Your task to perform on an android device: turn on airplane mode Image 0: 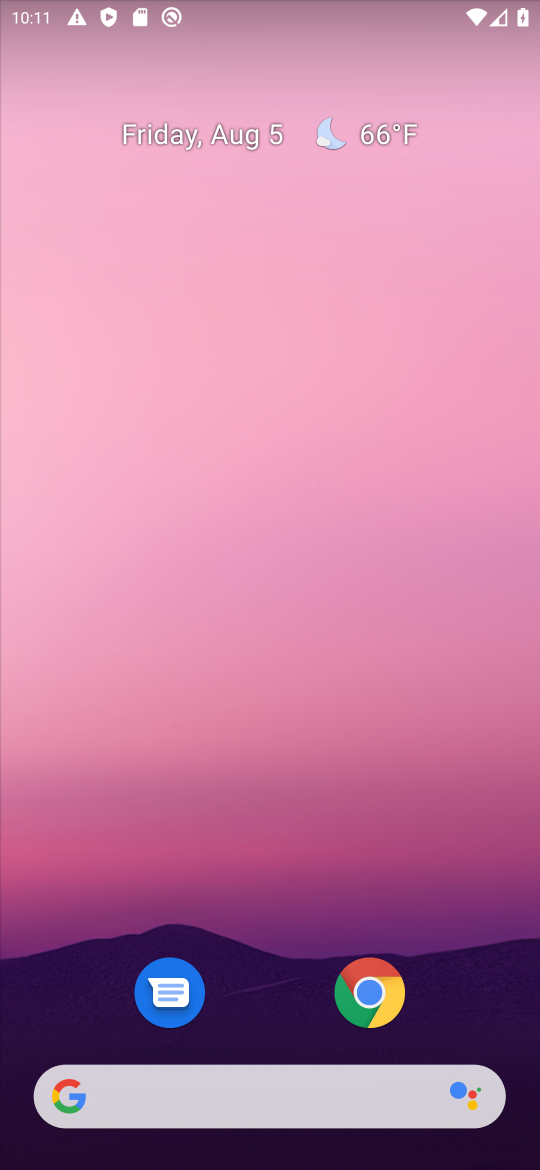
Step 0: press home button
Your task to perform on an android device: turn on airplane mode Image 1: 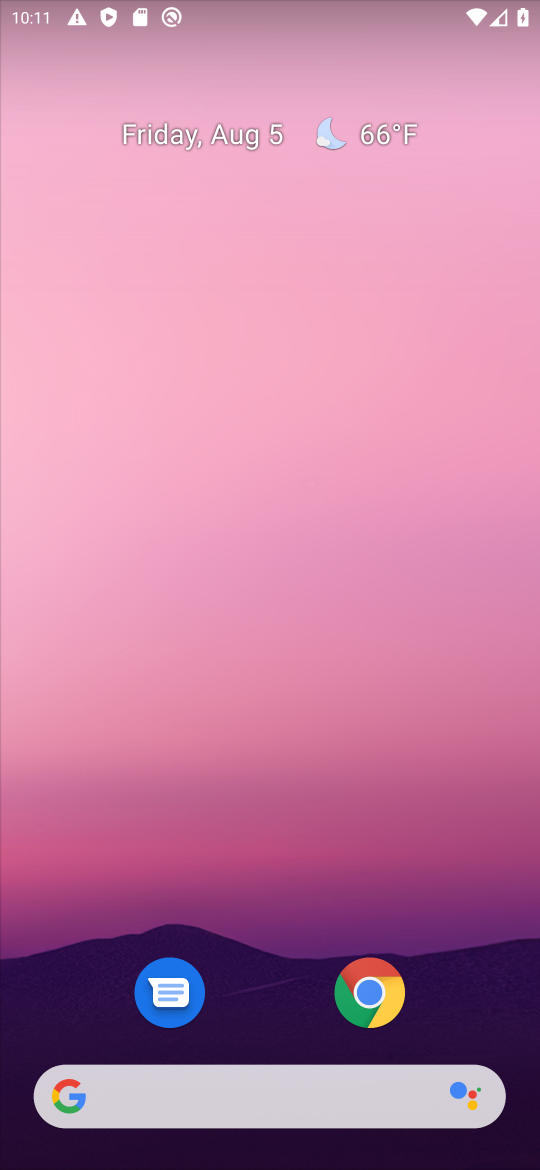
Step 1: drag from (243, 1068) to (336, 320)
Your task to perform on an android device: turn on airplane mode Image 2: 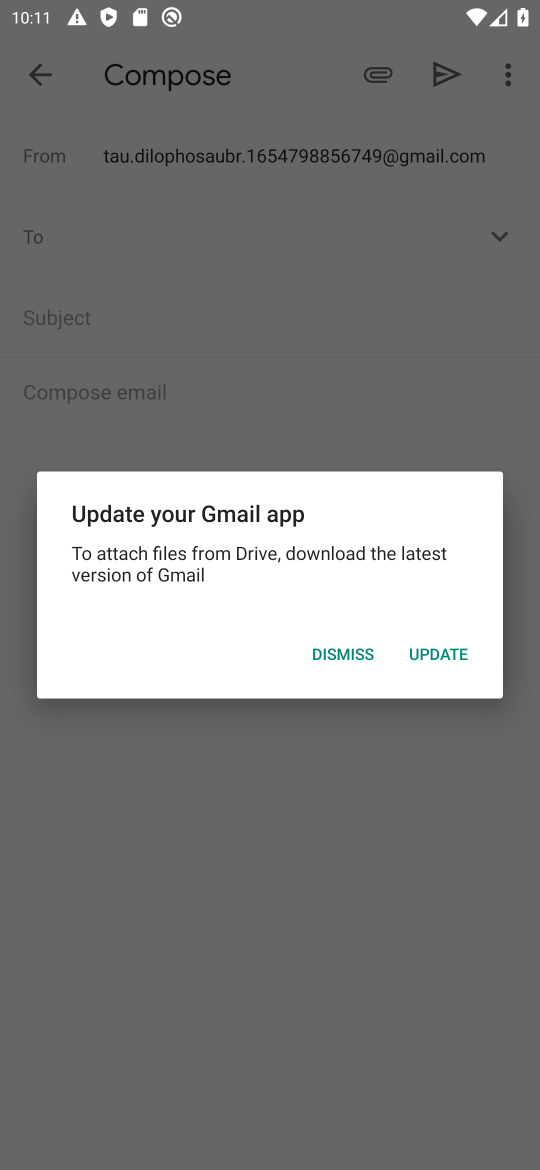
Step 2: click (462, 231)
Your task to perform on an android device: turn on airplane mode Image 3: 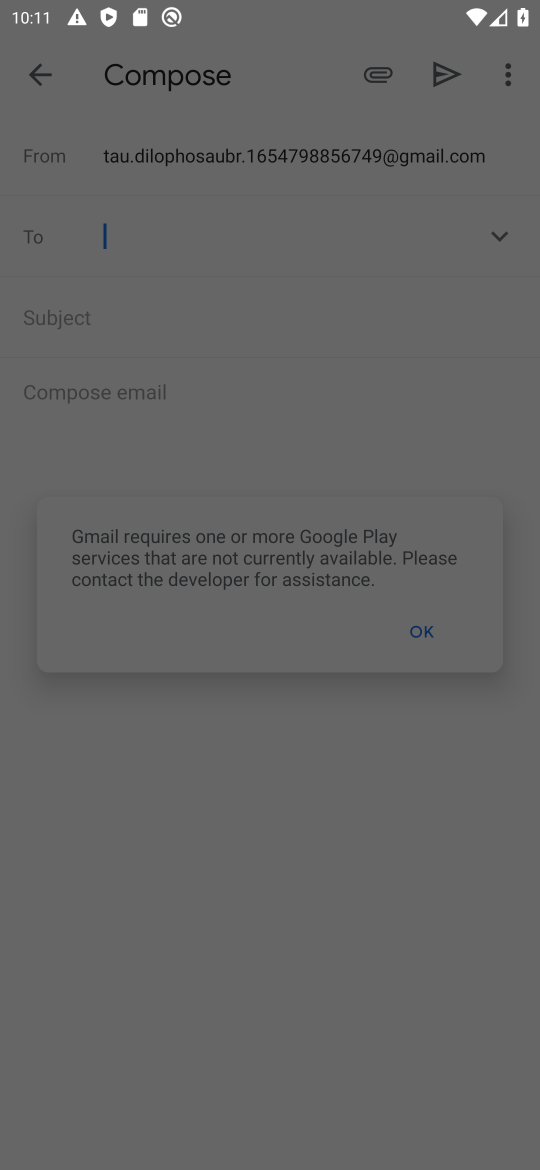
Step 3: press back button
Your task to perform on an android device: turn on airplane mode Image 4: 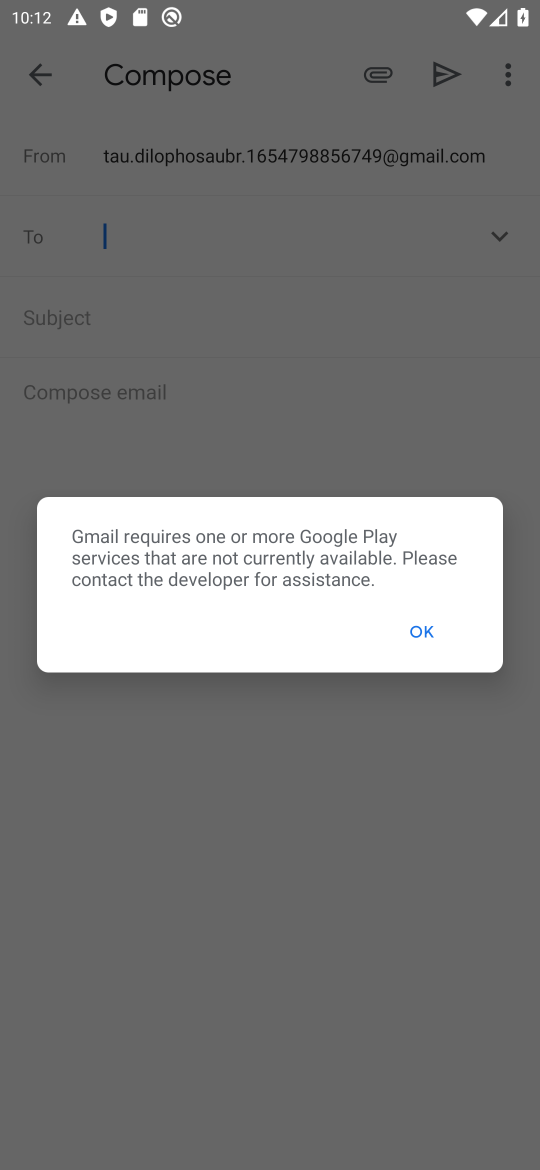
Step 4: click (417, 630)
Your task to perform on an android device: turn on airplane mode Image 5: 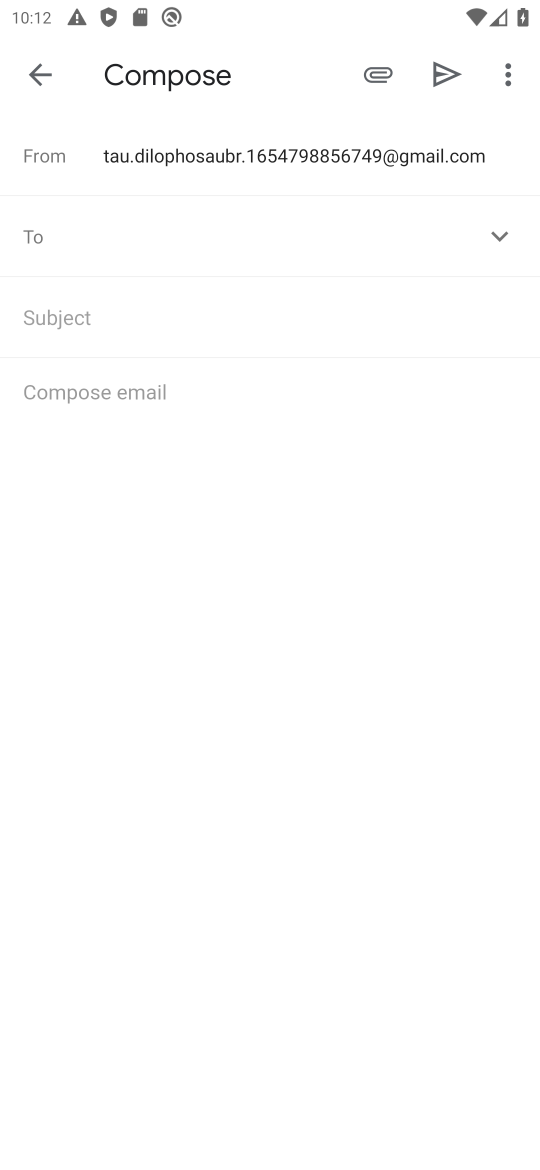
Step 5: click (39, 92)
Your task to perform on an android device: turn on airplane mode Image 6: 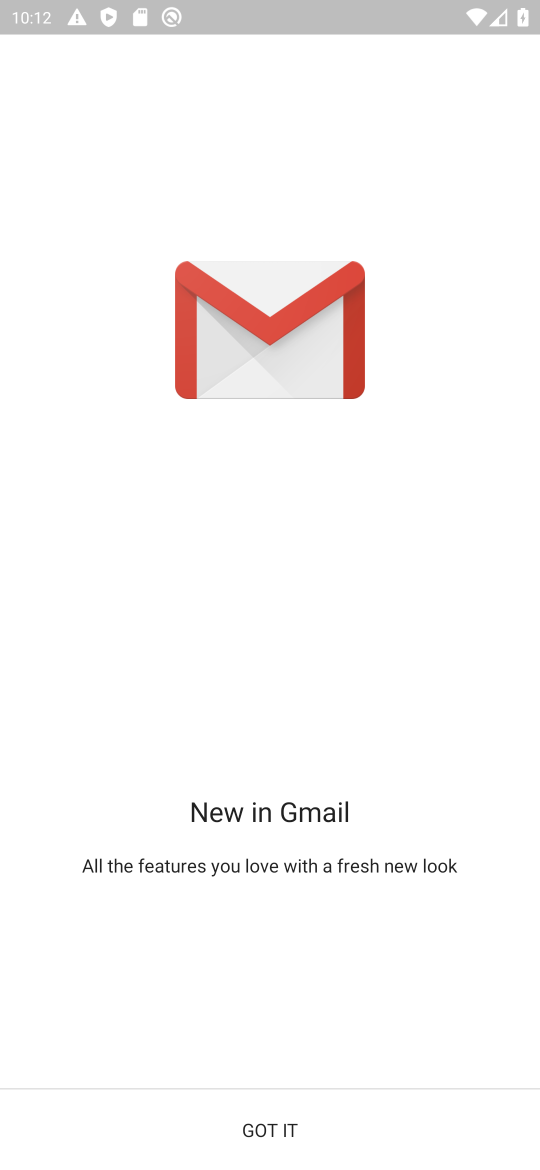
Step 6: press home button
Your task to perform on an android device: turn on airplane mode Image 7: 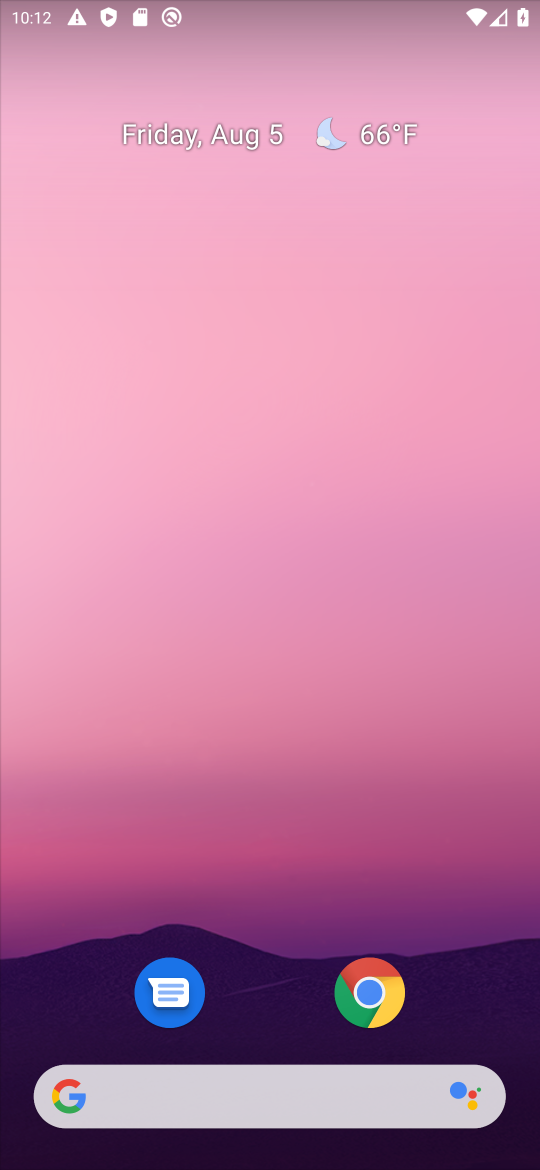
Step 7: drag from (289, 891) to (289, 267)
Your task to perform on an android device: turn on airplane mode Image 8: 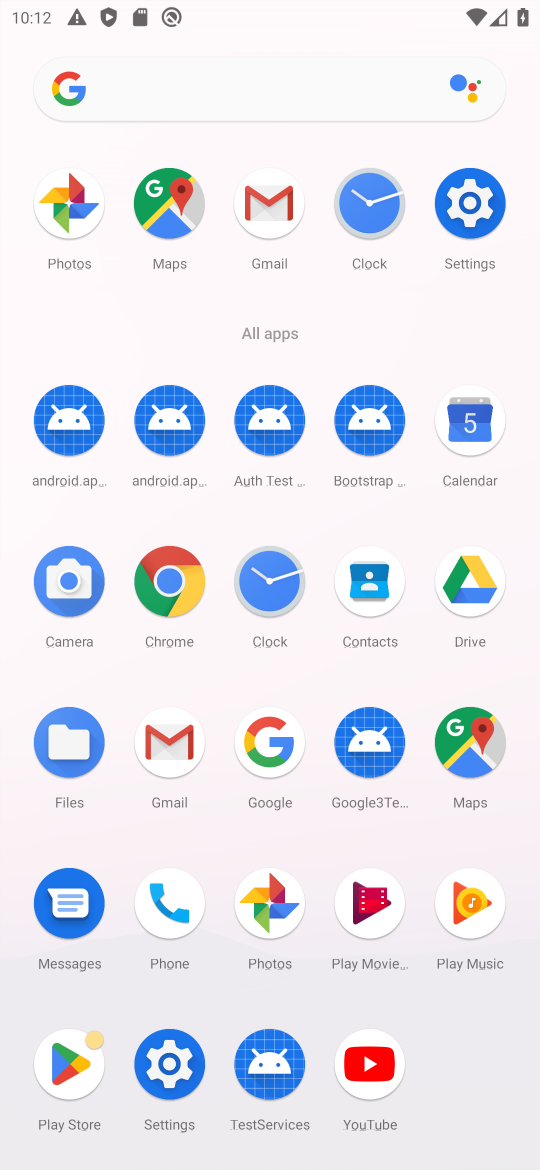
Step 8: click (472, 252)
Your task to perform on an android device: turn on airplane mode Image 9: 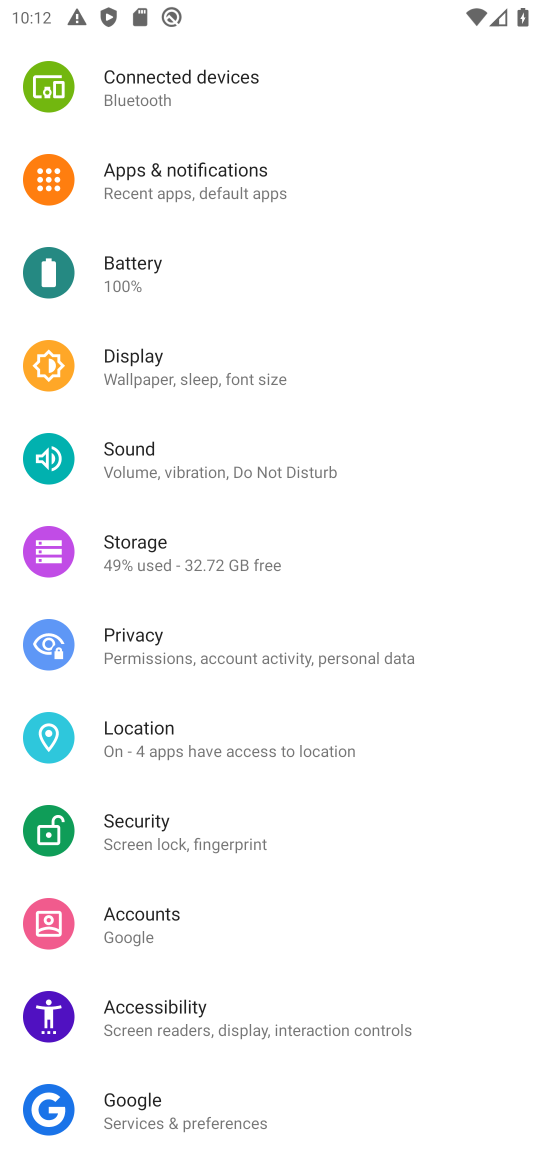
Step 9: drag from (259, 500) to (222, 969)
Your task to perform on an android device: turn on airplane mode Image 10: 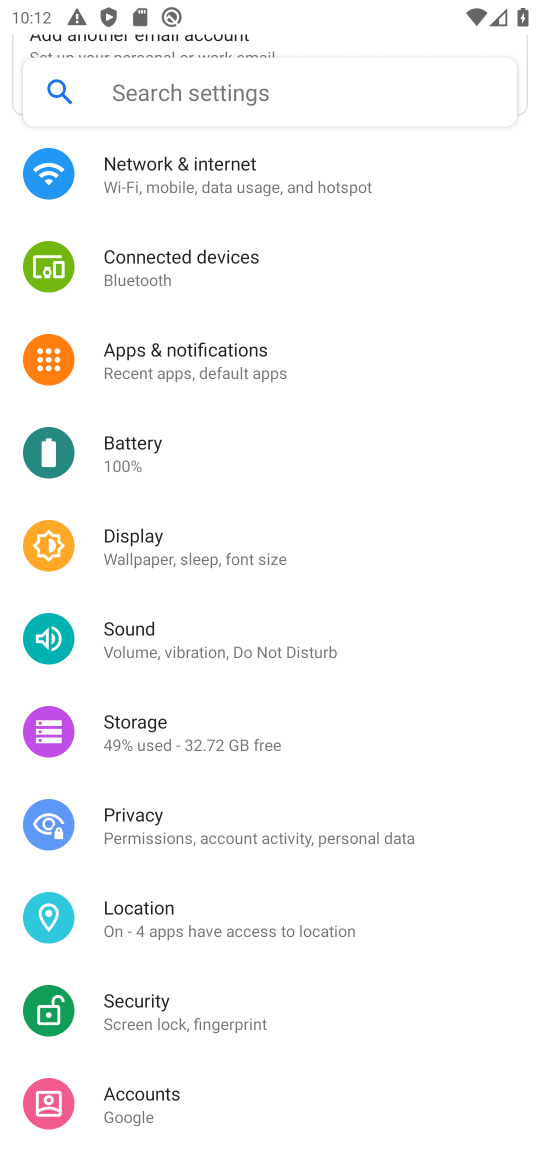
Step 10: drag from (244, 410) to (215, 909)
Your task to perform on an android device: turn on airplane mode Image 11: 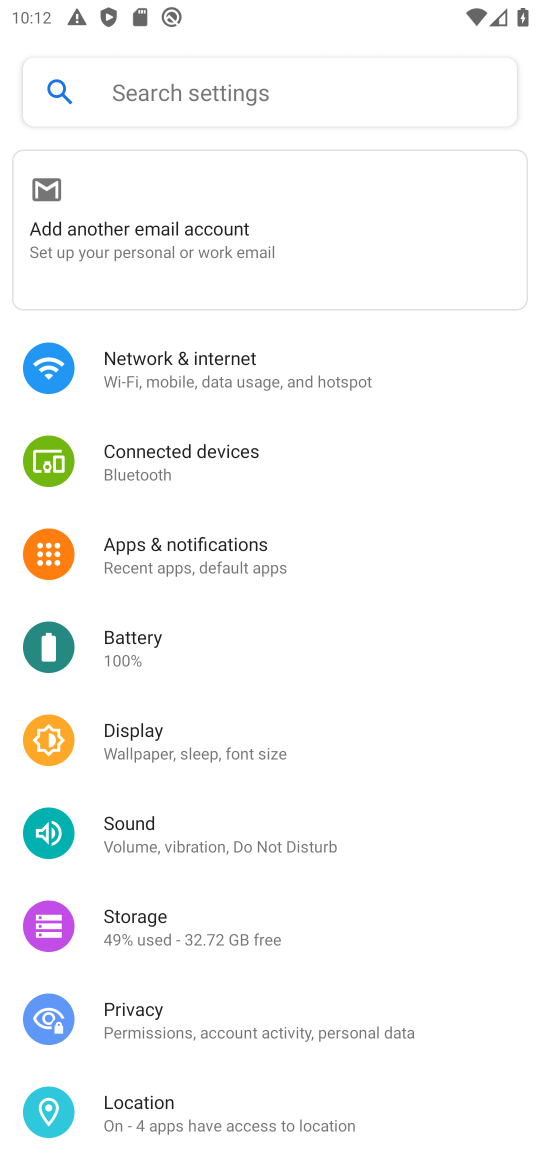
Step 11: click (211, 383)
Your task to perform on an android device: turn on airplane mode Image 12: 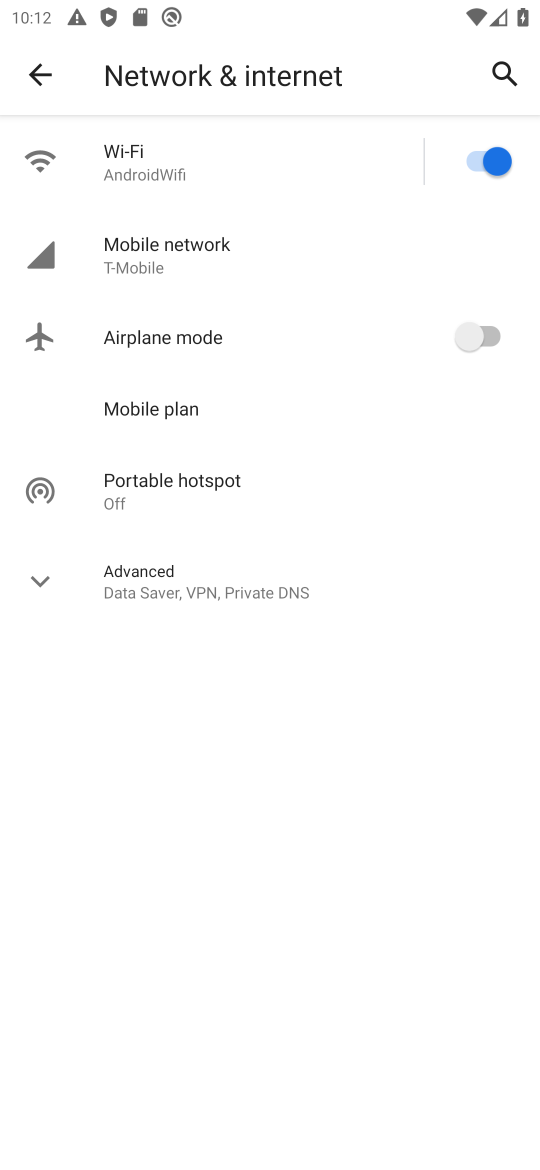
Step 12: click (266, 342)
Your task to perform on an android device: turn on airplane mode Image 13: 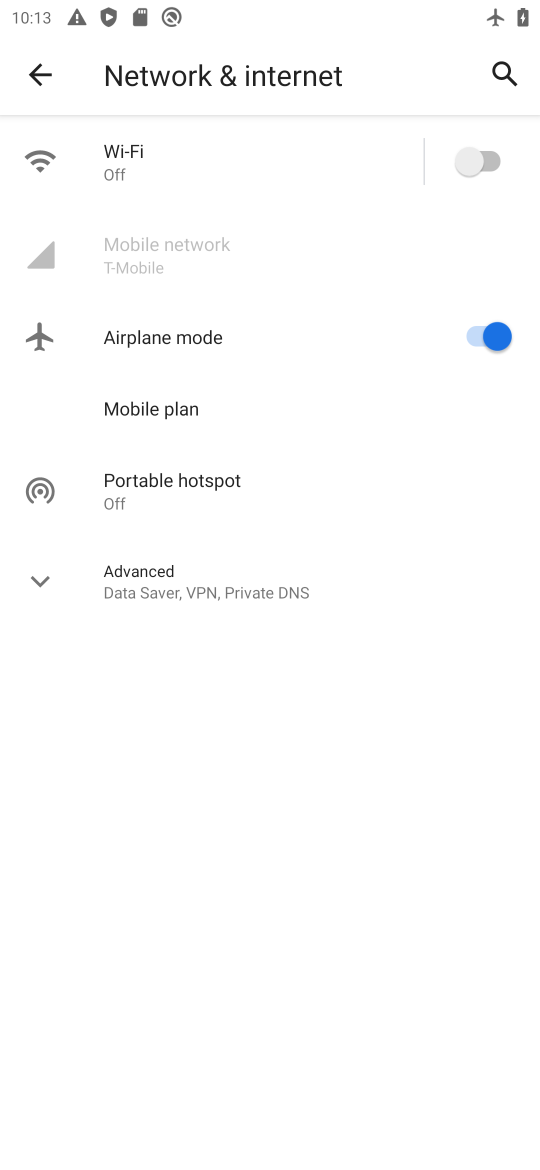
Step 13: task complete